Your task to perform on an android device: turn pop-ups off in chrome Image 0: 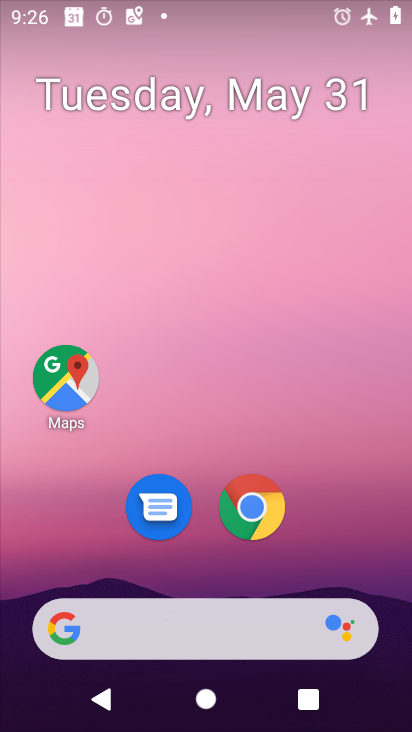
Step 0: drag from (390, 10) to (284, 542)
Your task to perform on an android device: turn pop-ups off in chrome Image 1: 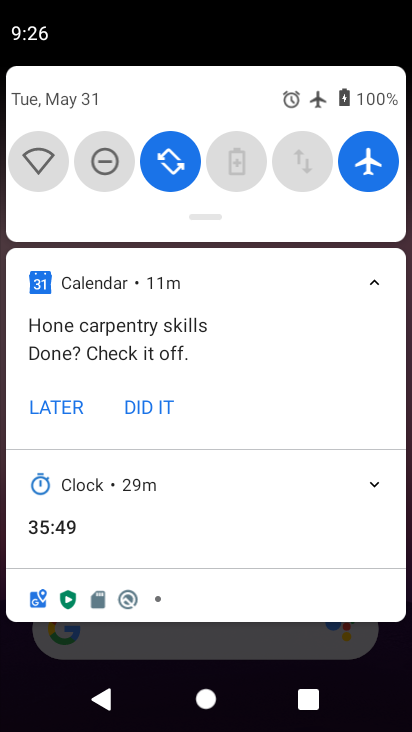
Step 1: click (366, 158)
Your task to perform on an android device: turn pop-ups off in chrome Image 2: 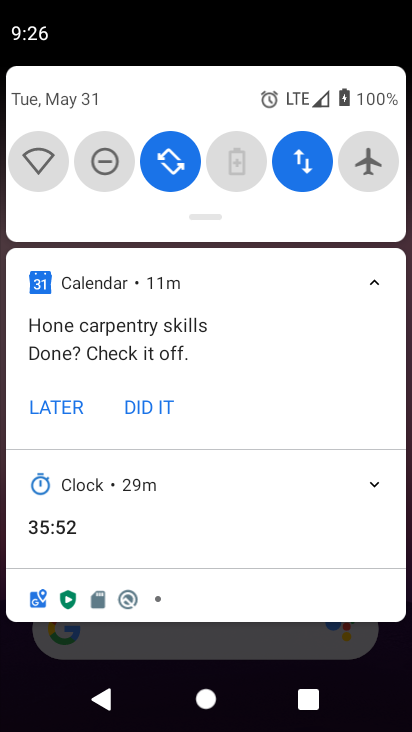
Step 2: press home button
Your task to perform on an android device: turn pop-ups off in chrome Image 3: 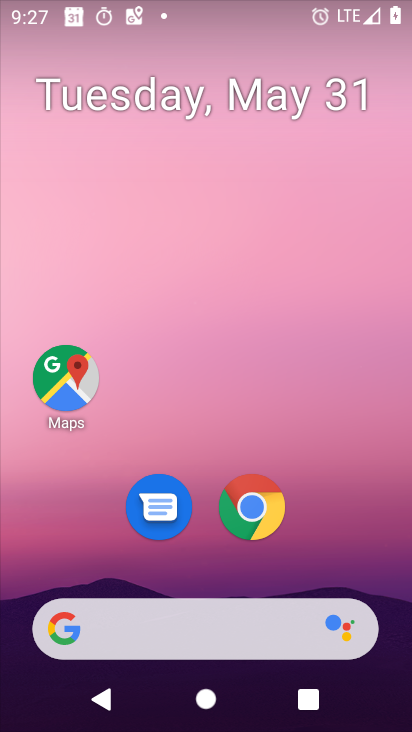
Step 3: click (253, 508)
Your task to perform on an android device: turn pop-ups off in chrome Image 4: 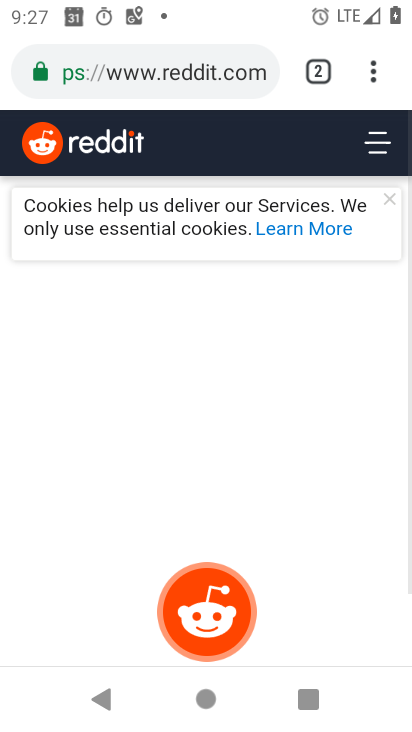
Step 4: click (375, 70)
Your task to perform on an android device: turn pop-ups off in chrome Image 5: 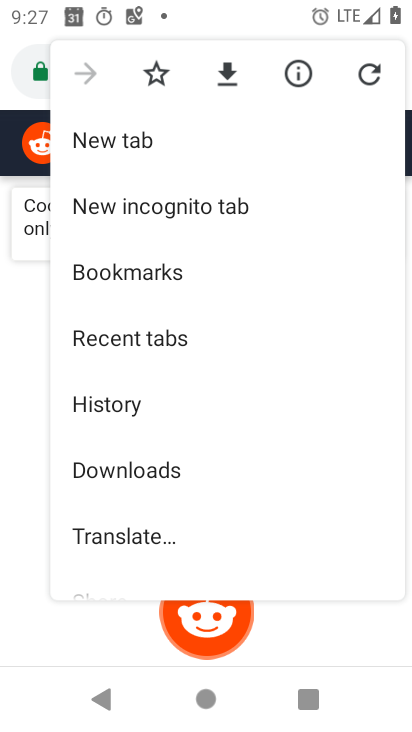
Step 5: drag from (12, 543) to (306, 139)
Your task to perform on an android device: turn pop-ups off in chrome Image 6: 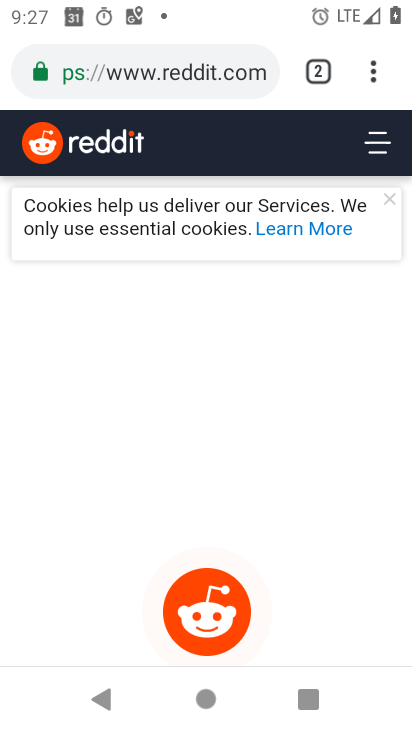
Step 6: click (379, 68)
Your task to perform on an android device: turn pop-ups off in chrome Image 7: 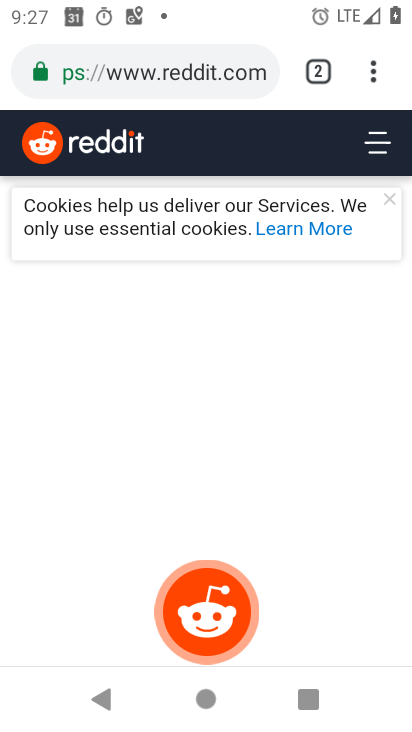
Step 7: click (373, 71)
Your task to perform on an android device: turn pop-ups off in chrome Image 8: 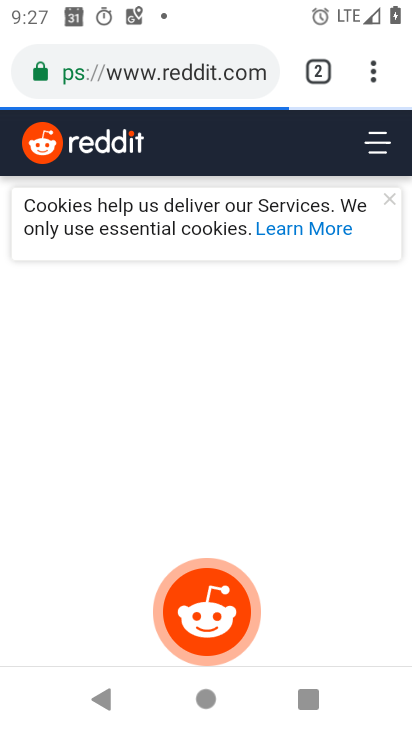
Step 8: click (373, 71)
Your task to perform on an android device: turn pop-ups off in chrome Image 9: 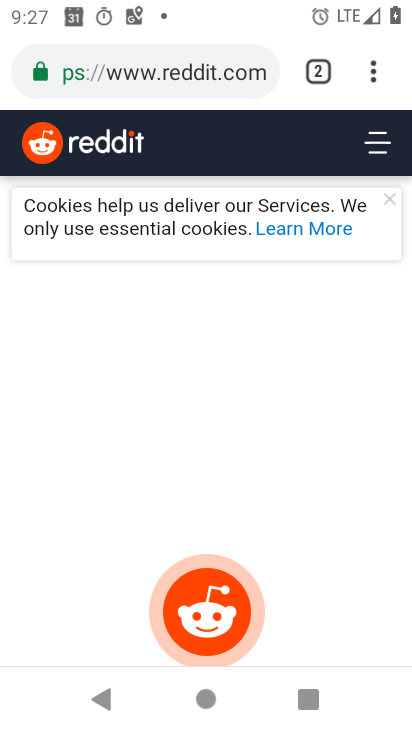
Step 9: click (391, 79)
Your task to perform on an android device: turn pop-ups off in chrome Image 10: 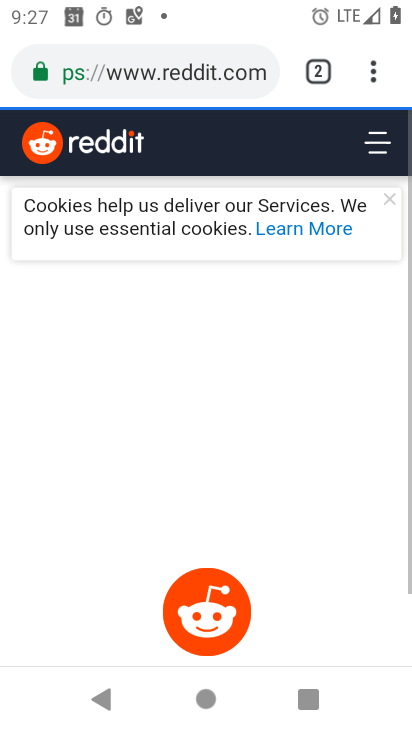
Step 10: click (389, 73)
Your task to perform on an android device: turn pop-ups off in chrome Image 11: 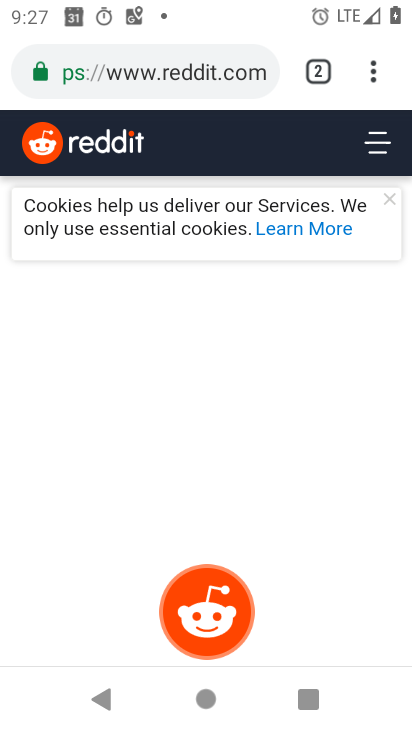
Step 11: click (381, 77)
Your task to perform on an android device: turn pop-ups off in chrome Image 12: 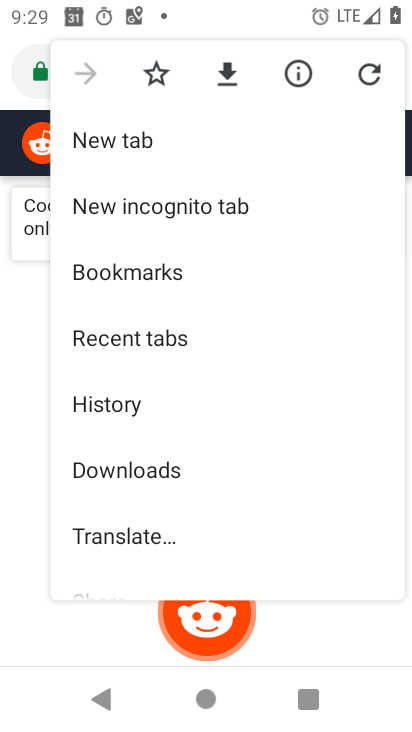
Step 12: drag from (109, 570) to (294, 212)
Your task to perform on an android device: turn pop-ups off in chrome Image 13: 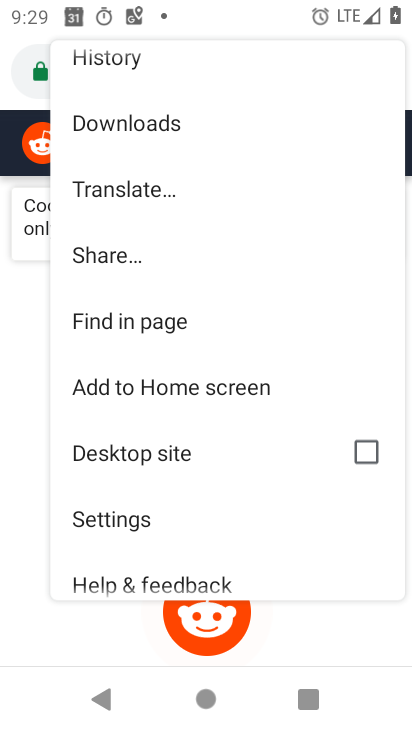
Step 13: click (105, 523)
Your task to perform on an android device: turn pop-ups off in chrome Image 14: 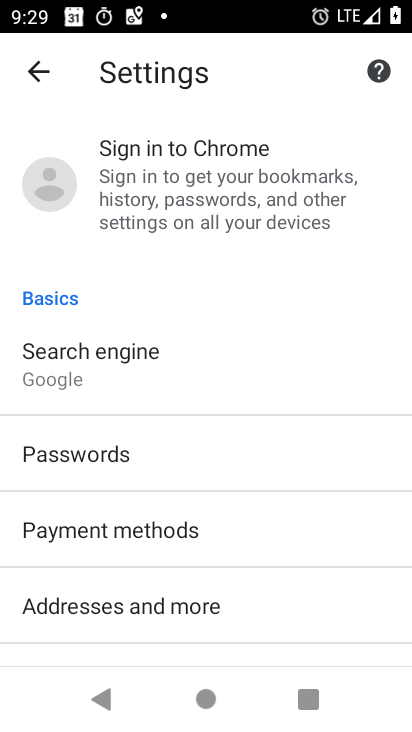
Step 14: drag from (19, 476) to (289, 211)
Your task to perform on an android device: turn pop-ups off in chrome Image 15: 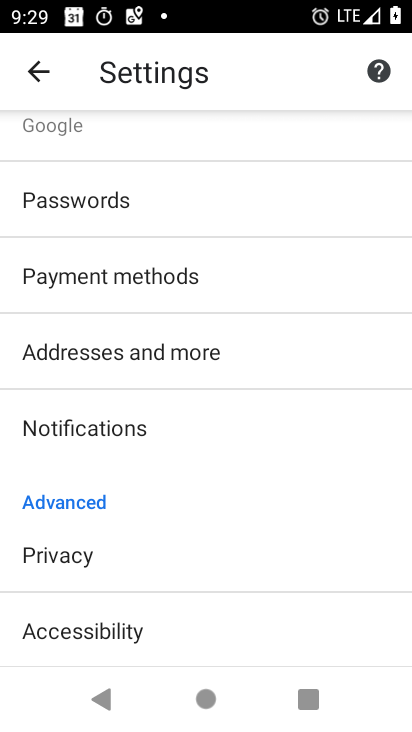
Step 15: drag from (40, 498) to (241, 295)
Your task to perform on an android device: turn pop-ups off in chrome Image 16: 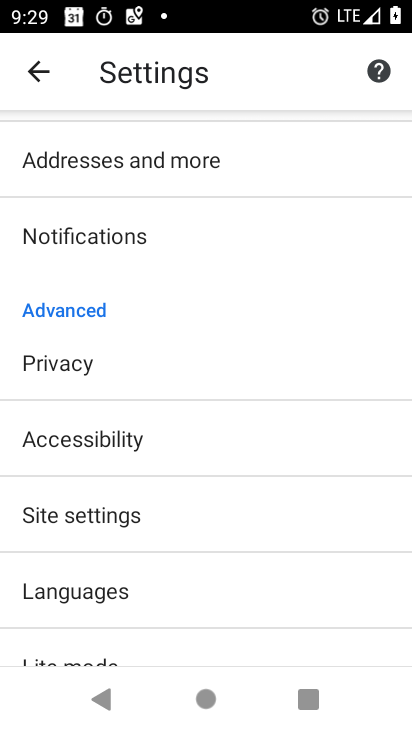
Step 16: click (145, 512)
Your task to perform on an android device: turn pop-ups off in chrome Image 17: 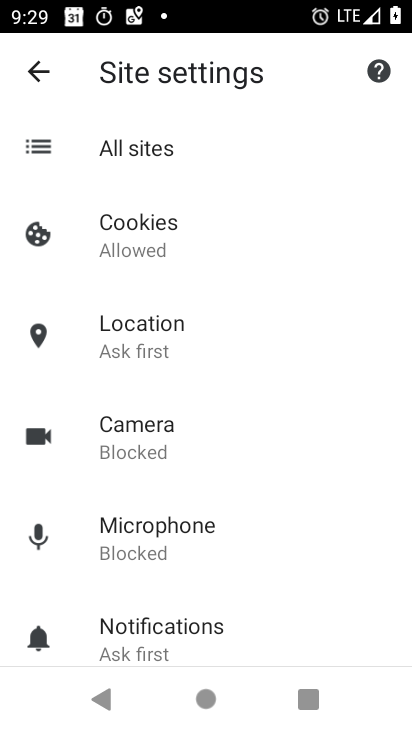
Step 17: drag from (20, 520) to (270, 301)
Your task to perform on an android device: turn pop-ups off in chrome Image 18: 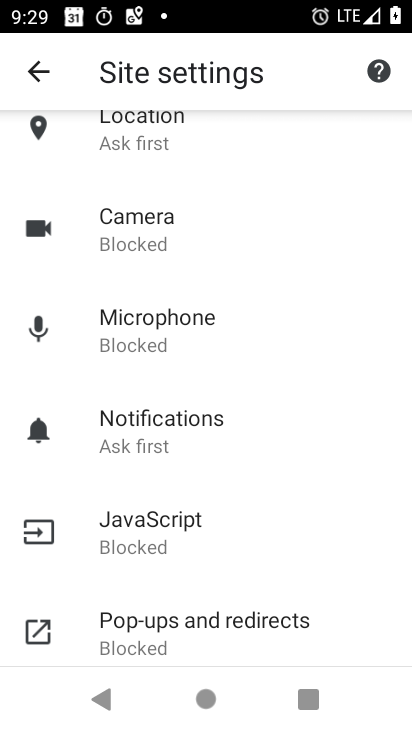
Step 18: click (165, 637)
Your task to perform on an android device: turn pop-ups off in chrome Image 19: 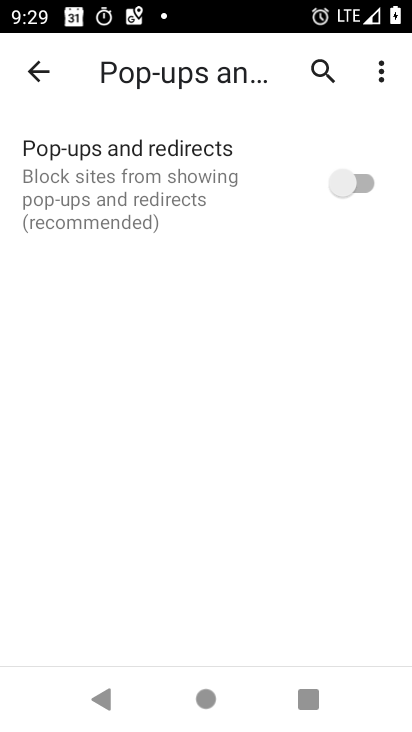
Step 19: task complete